Your task to perform on an android device: toggle data saver in the chrome app Image 0: 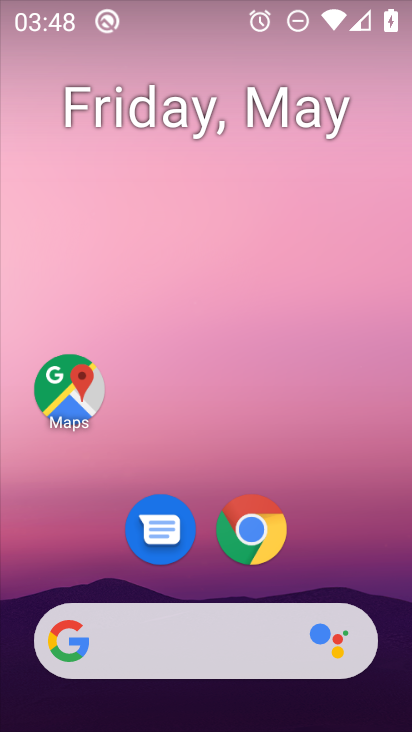
Step 0: click (252, 536)
Your task to perform on an android device: toggle data saver in the chrome app Image 1: 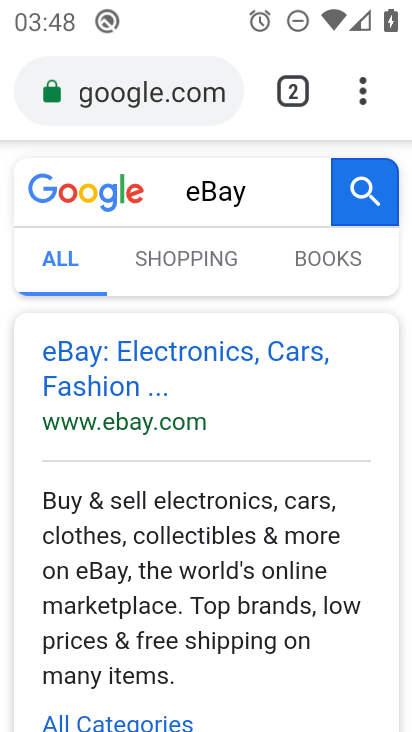
Step 1: click (363, 90)
Your task to perform on an android device: toggle data saver in the chrome app Image 2: 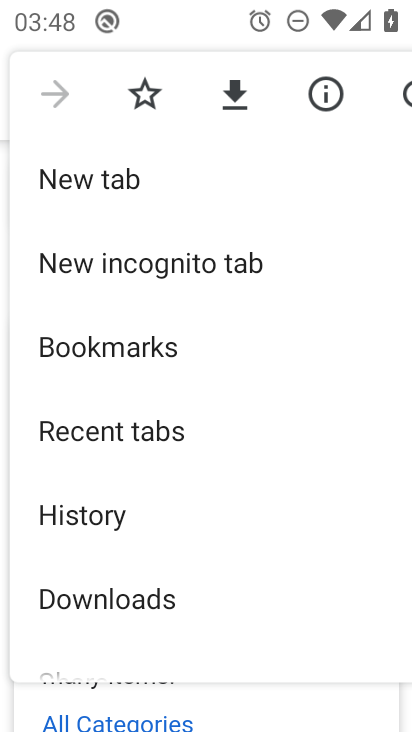
Step 2: drag from (259, 630) to (276, 368)
Your task to perform on an android device: toggle data saver in the chrome app Image 3: 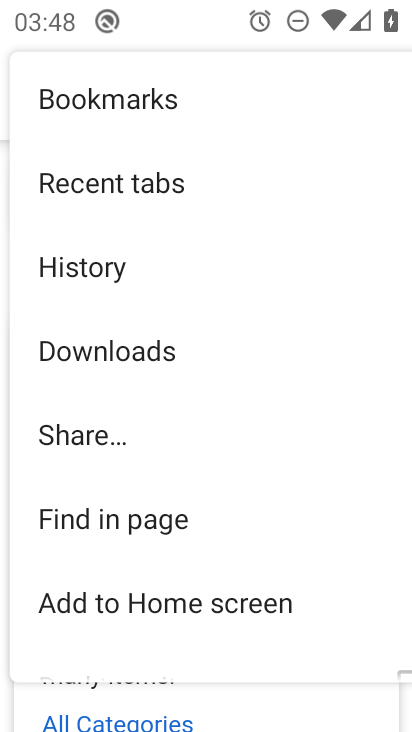
Step 3: drag from (297, 646) to (282, 409)
Your task to perform on an android device: toggle data saver in the chrome app Image 4: 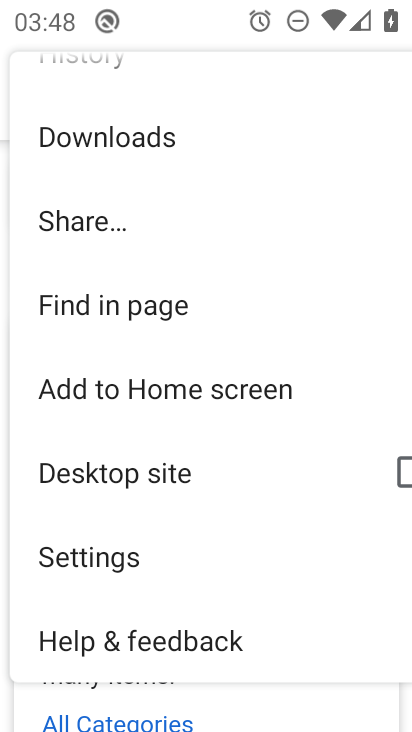
Step 4: click (82, 560)
Your task to perform on an android device: toggle data saver in the chrome app Image 5: 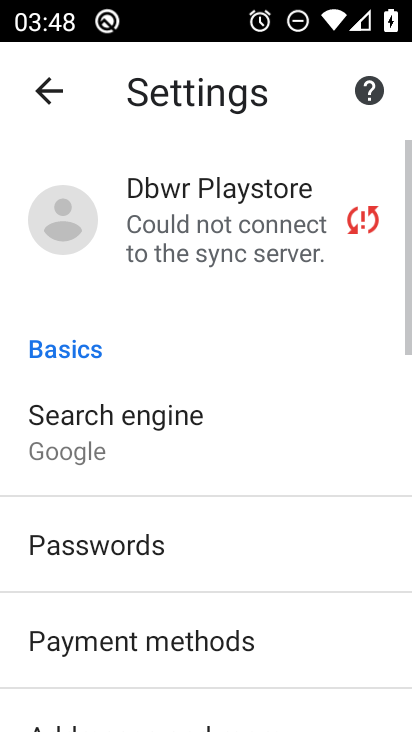
Step 5: drag from (282, 692) to (294, 301)
Your task to perform on an android device: toggle data saver in the chrome app Image 6: 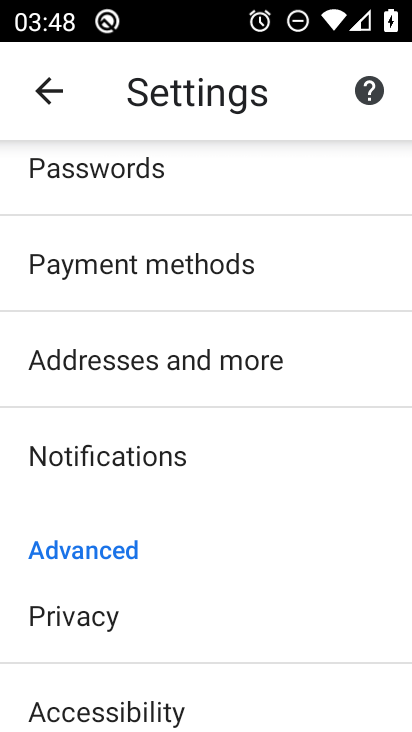
Step 6: drag from (277, 698) to (276, 351)
Your task to perform on an android device: toggle data saver in the chrome app Image 7: 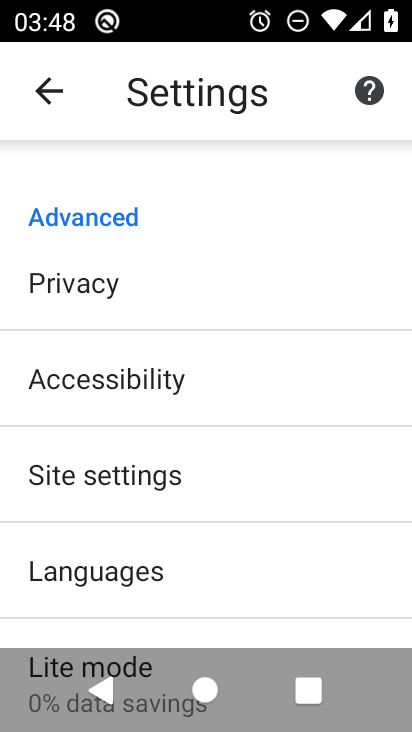
Step 7: drag from (268, 605) to (306, 387)
Your task to perform on an android device: toggle data saver in the chrome app Image 8: 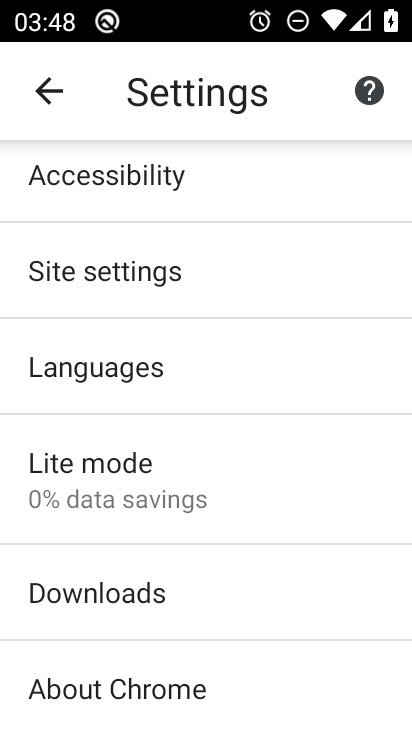
Step 8: click (73, 480)
Your task to perform on an android device: toggle data saver in the chrome app Image 9: 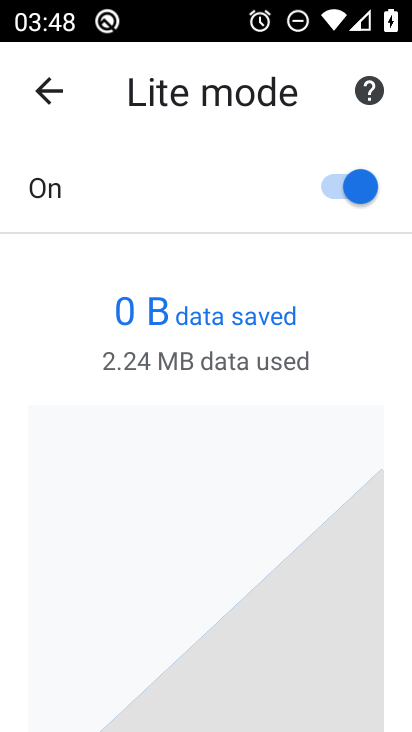
Step 9: click (329, 186)
Your task to perform on an android device: toggle data saver in the chrome app Image 10: 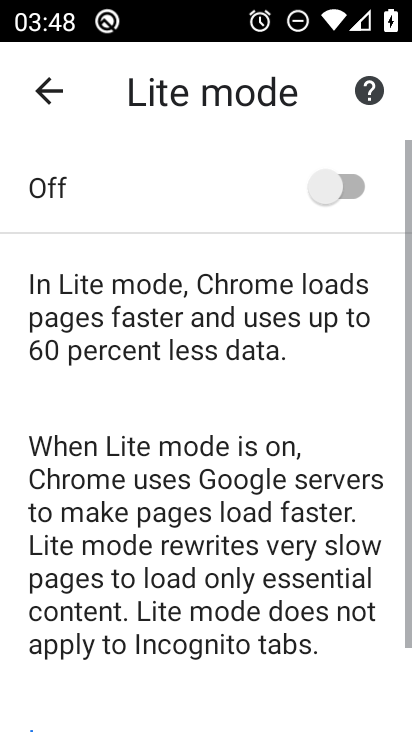
Step 10: task complete